Your task to perform on an android device: change the clock style Image 0: 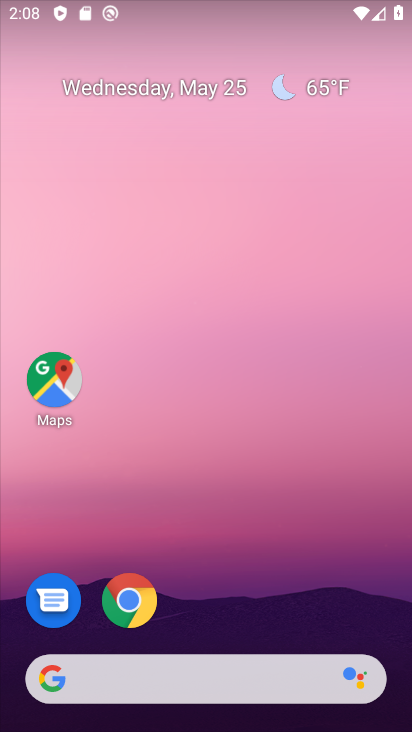
Step 0: drag from (307, 546) to (319, 108)
Your task to perform on an android device: change the clock style Image 1: 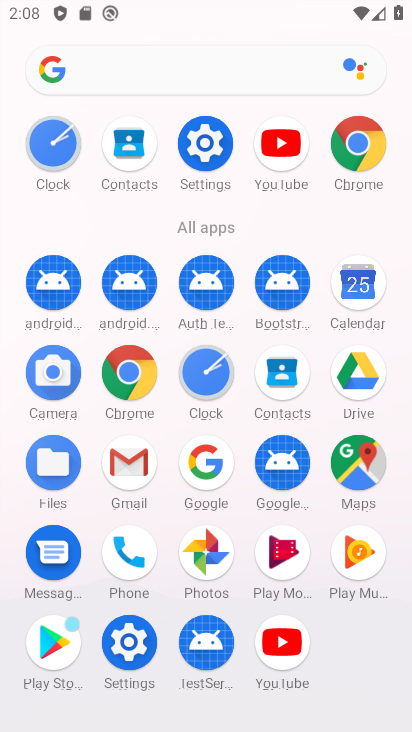
Step 1: click (196, 372)
Your task to perform on an android device: change the clock style Image 2: 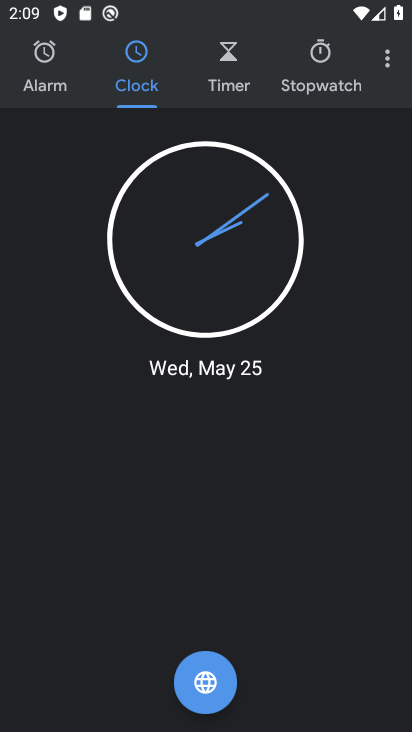
Step 2: click (390, 53)
Your task to perform on an android device: change the clock style Image 3: 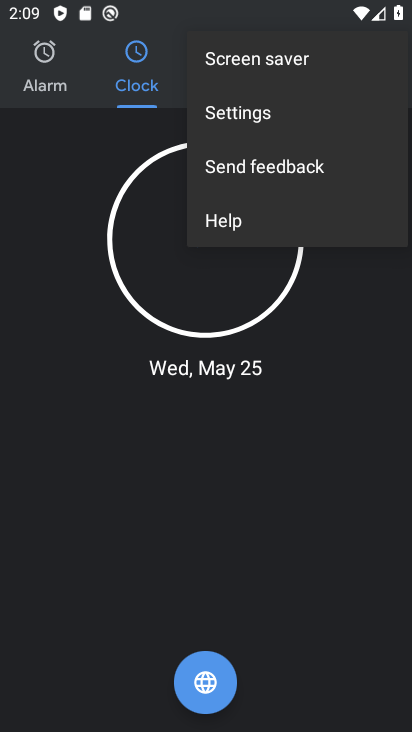
Step 3: click (263, 114)
Your task to perform on an android device: change the clock style Image 4: 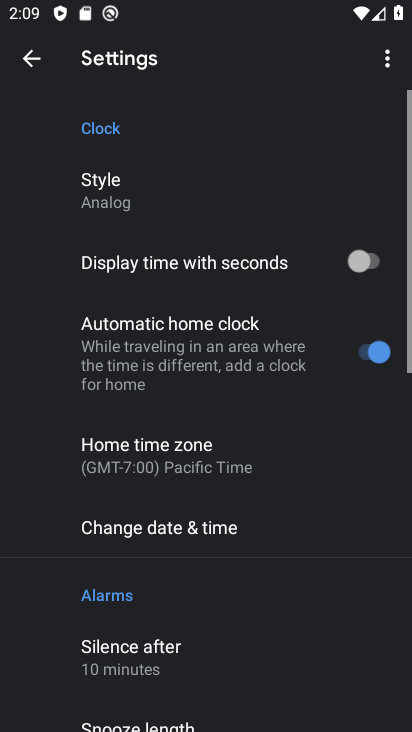
Step 4: click (144, 188)
Your task to perform on an android device: change the clock style Image 5: 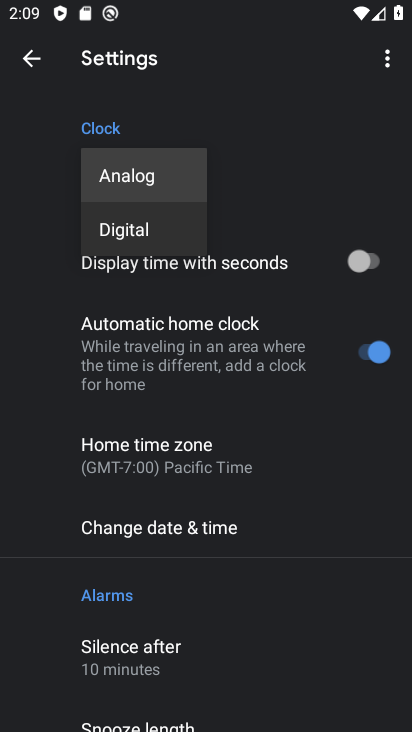
Step 5: click (146, 237)
Your task to perform on an android device: change the clock style Image 6: 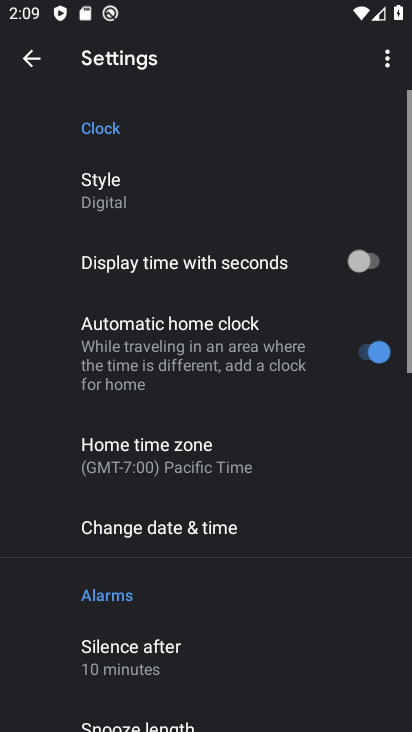
Step 6: task complete